Your task to perform on an android device: turn off javascript in the chrome app Image 0: 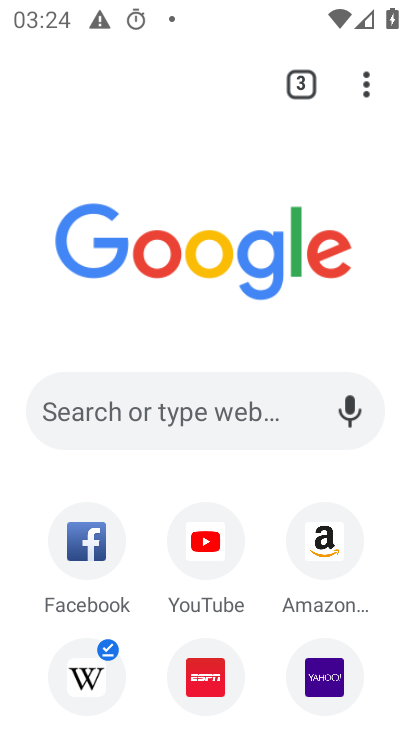
Step 0: click (364, 84)
Your task to perform on an android device: turn off javascript in the chrome app Image 1: 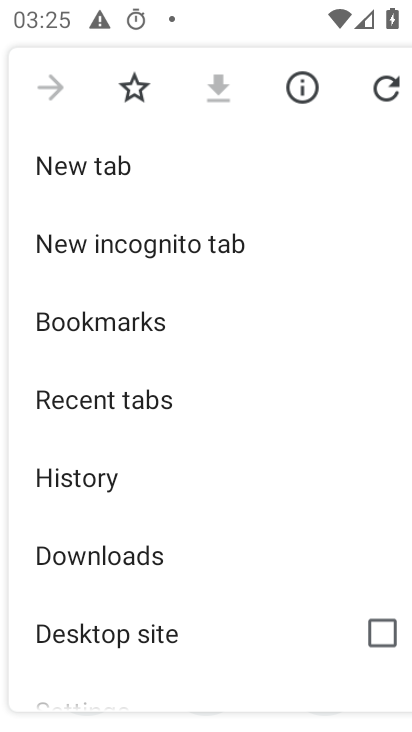
Step 1: drag from (64, 631) to (107, 318)
Your task to perform on an android device: turn off javascript in the chrome app Image 2: 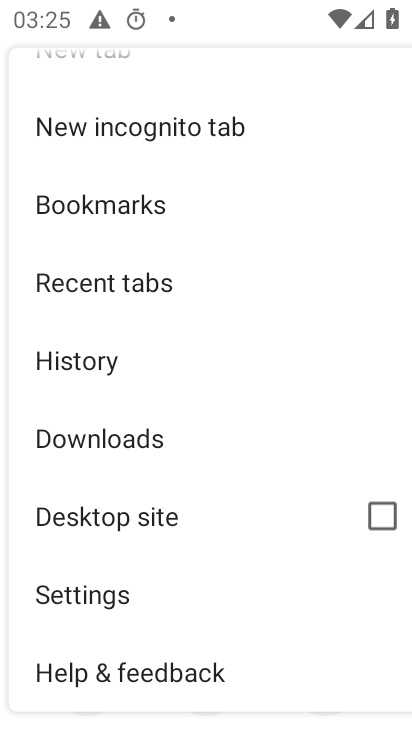
Step 2: click (70, 593)
Your task to perform on an android device: turn off javascript in the chrome app Image 3: 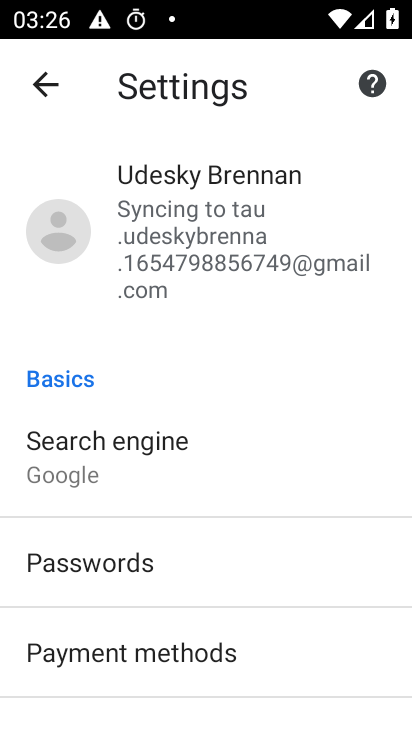
Step 3: drag from (138, 641) to (138, 253)
Your task to perform on an android device: turn off javascript in the chrome app Image 4: 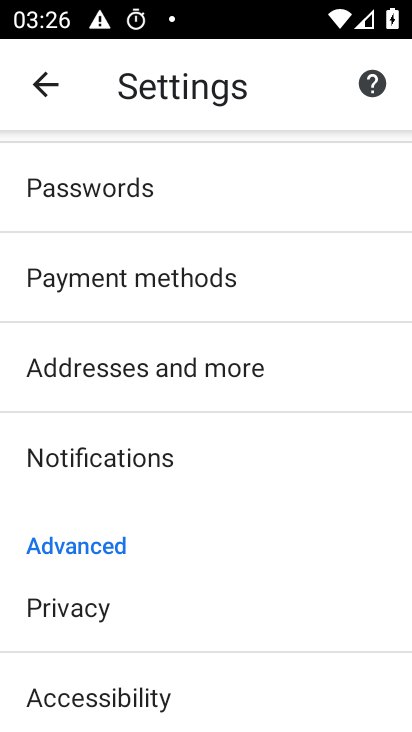
Step 4: drag from (102, 692) to (102, 304)
Your task to perform on an android device: turn off javascript in the chrome app Image 5: 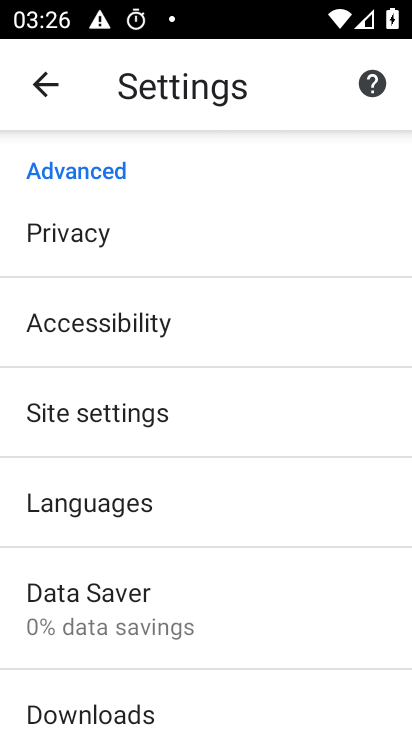
Step 5: click (89, 411)
Your task to perform on an android device: turn off javascript in the chrome app Image 6: 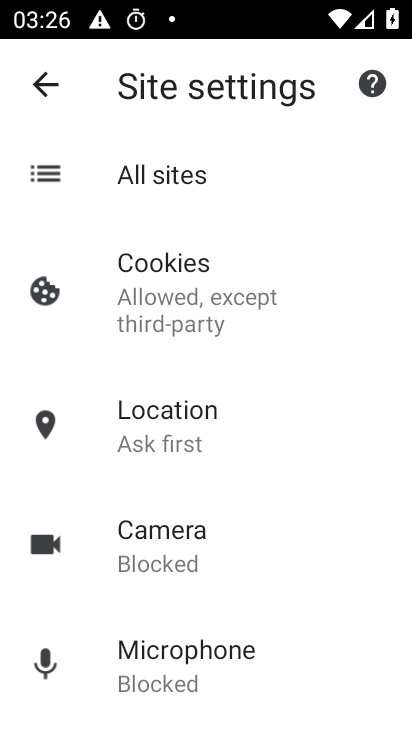
Step 6: drag from (131, 647) to (131, 241)
Your task to perform on an android device: turn off javascript in the chrome app Image 7: 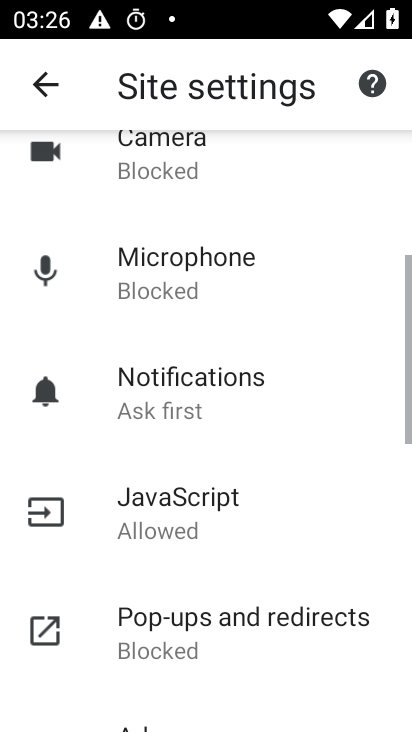
Step 7: click (137, 530)
Your task to perform on an android device: turn off javascript in the chrome app Image 8: 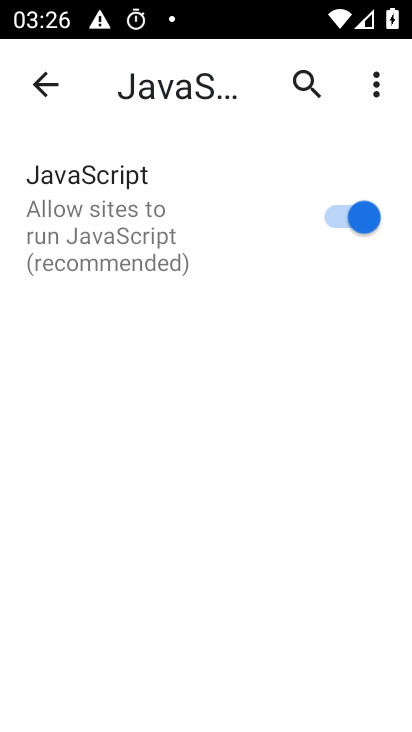
Step 8: click (333, 222)
Your task to perform on an android device: turn off javascript in the chrome app Image 9: 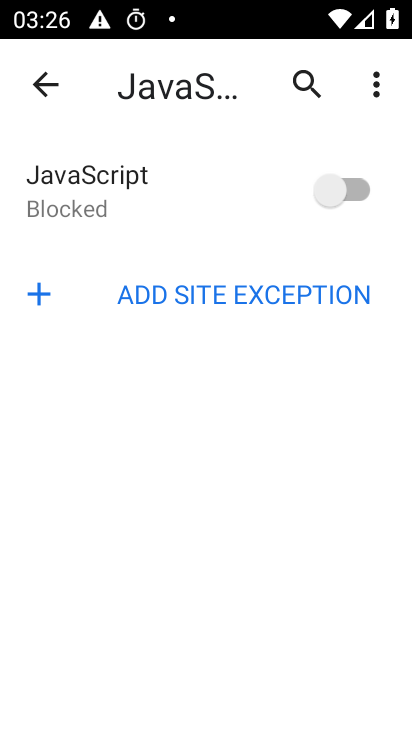
Step 9: task complete